Your task to perform on an android device: see creations saved in the google photos Image 0: 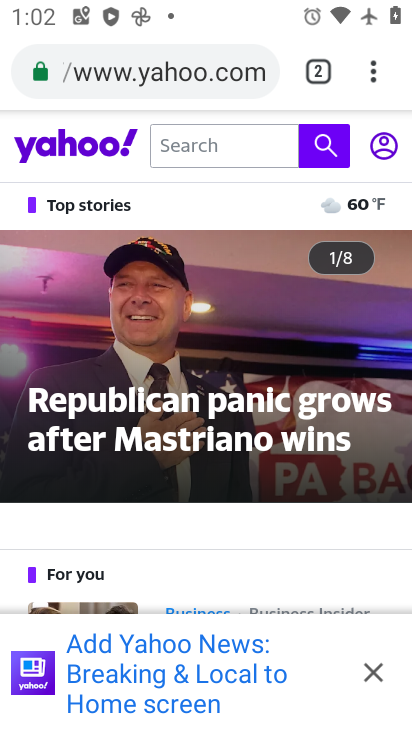
Step 0: press home button
Your task to perform on an android device: see creations saved in the google photos Image 1: 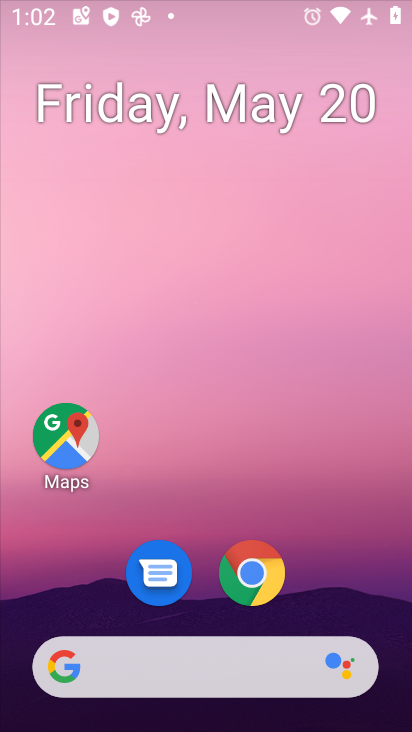
Step 1: drag from (326, 573) to (286, 80)
Your task to perform on an android device: see creations saved in the google photos Image 2: 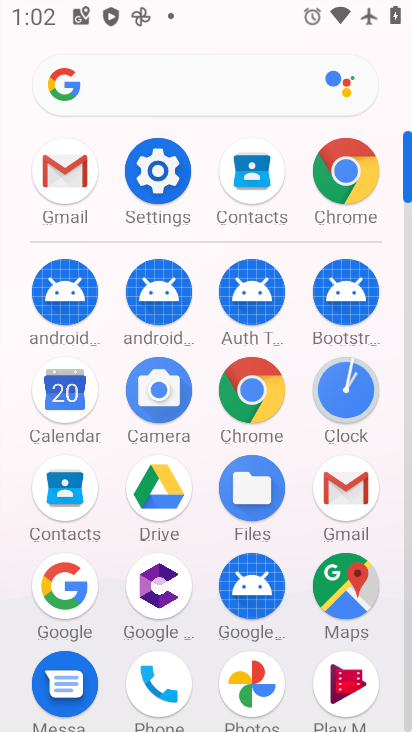
Step 2: click (248, 672)
Your task to perform on an android device: see creations saved in the google photos Image 3: 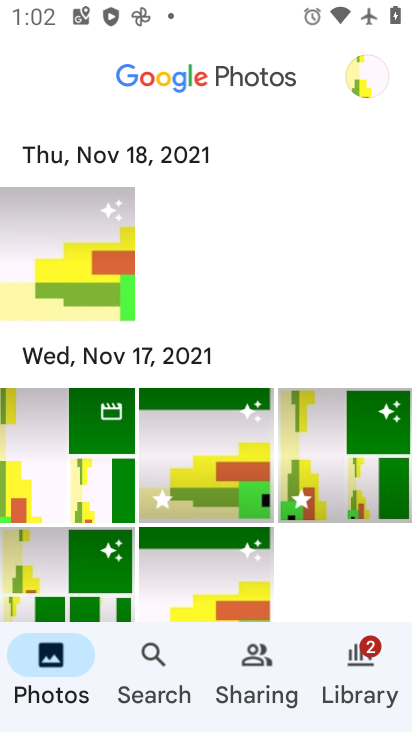
Step 3: click (167, 672)
Your task to perform on an android device: see creations saved in the google photos Image 4: 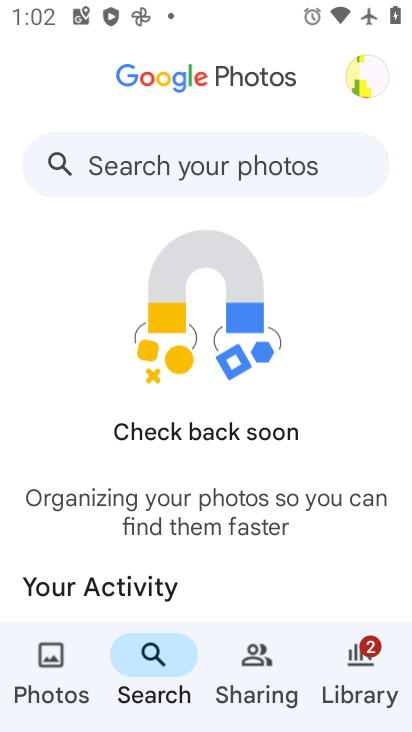
Step 4: drag from (292, 515) to (285, 71)
Your task to perform on an android device: see creations saved in the google photos Image 5: 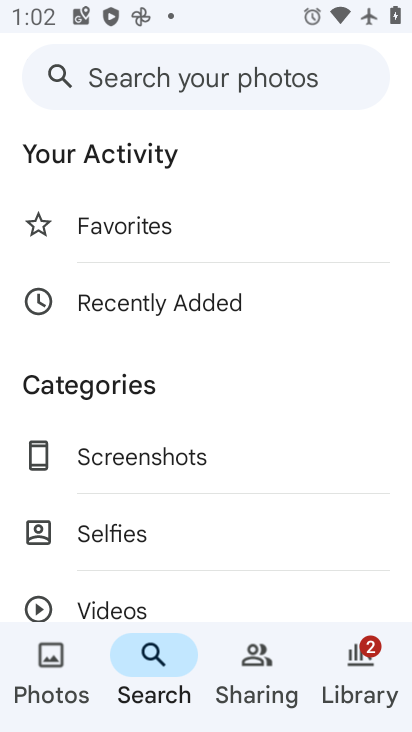
Step 5: drag from (213, 548) to (211, 102)
Your task to perform on an android device: see creations saved in the google photos Image 6: 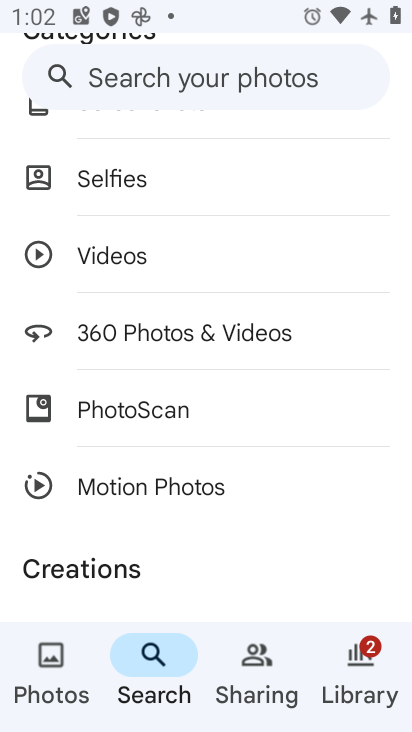
Step 6: drag from (215, 503) to (215, 226)
Your task to perform on an android device: see creations saved in the google photos Image 7: 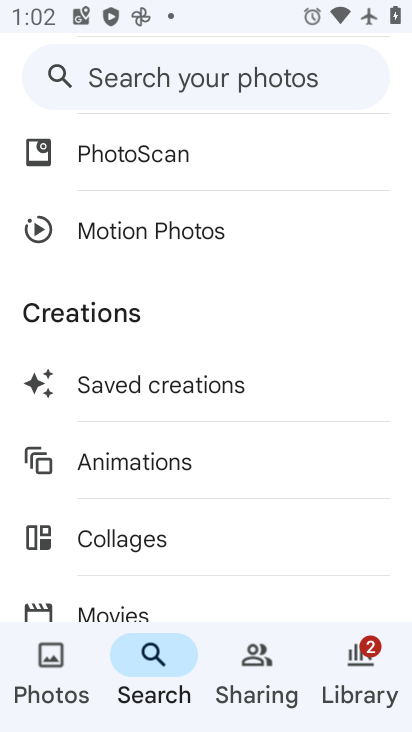
Step 7: click (175, 381)
Your task to perform on an android device: see creations saved in the google photos Image 8: 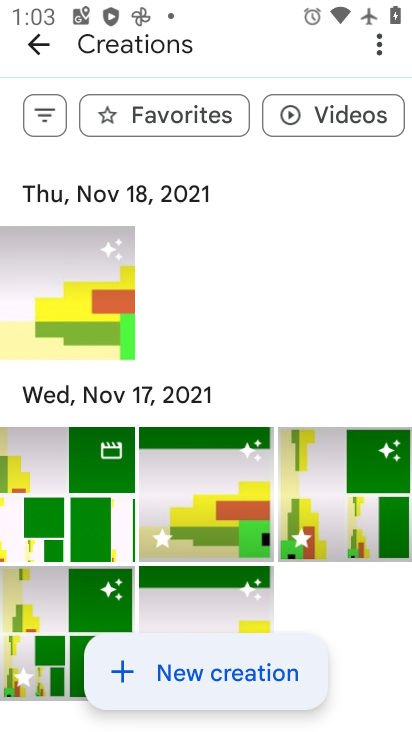
Step 8: task complete